Your task to perform on an android device: Add "lg ultragear" to the cart on target Image 0: 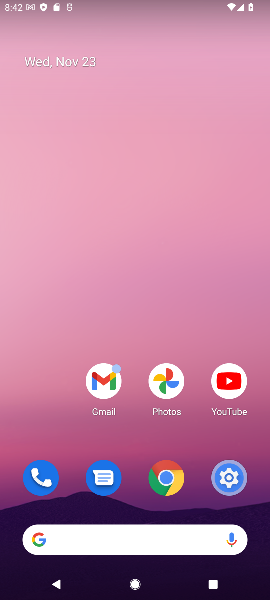
Step 0: click (115, 541)
Your task to perform on an android device: Add "lg ultragear" to the cart on target Image 1: 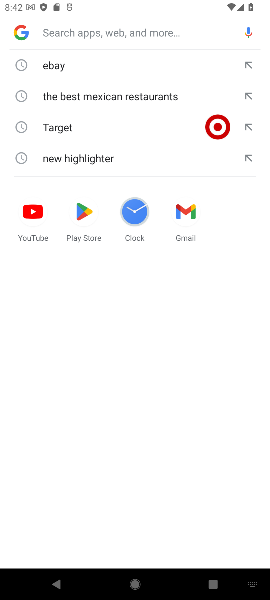
Step 1: type "target"
Your task to perform on an android device: Add "lg ultragear" to the cart on target Image 2: 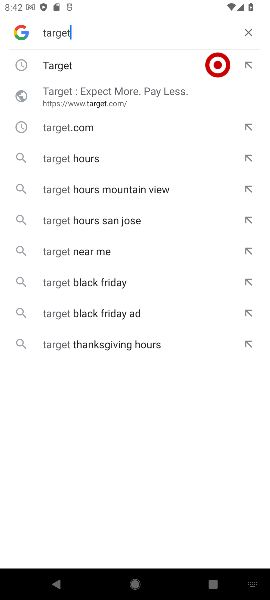
Step 2: click (59, 72)
Your task to perform on an android device: Add "lg ultragear" to the cart on target Image 3: 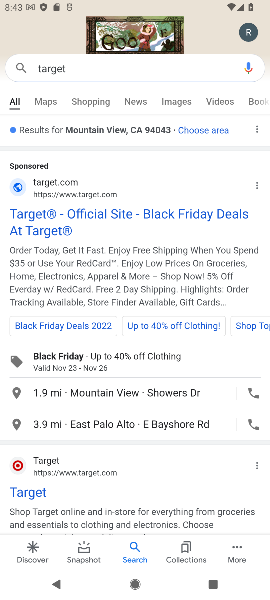
Step 3: click (45, 234)
Your task to perform on an android device: Add "lg ultragear" to the cart on target Image 4: 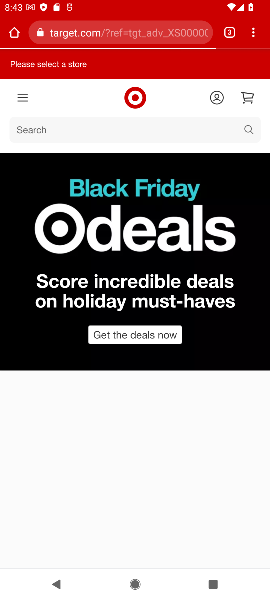
Step 4: click (202, 129)
Your task to perform on an android device: Add "lg ultragear" to the cart on target Image 5: 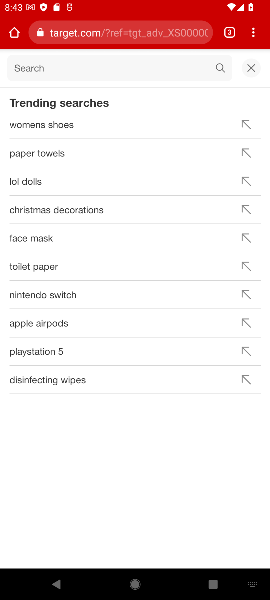
Step 5: type "lg ultragear"
Your task to perform on an android device: Add "lg ultragear" to the cart on target Image 6: 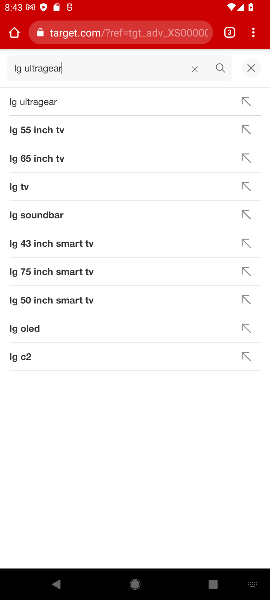
Step 6: click (220, 69)
Your task to perform on an android device: Add "lg ultragear" to the cart on target Image 7: 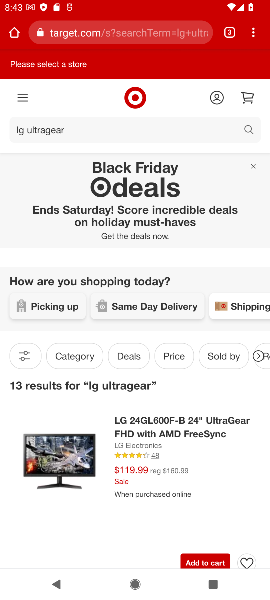
Step 7: click (205, 561)
Your task to perform on an android device: Add "lg ultragear" to the cart on target Image 8: 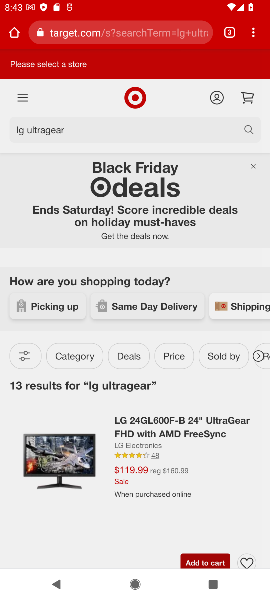
Step 8: task complete